Your task to perform on an android device: Open Google Maps and go to "Timeline" Image 0: 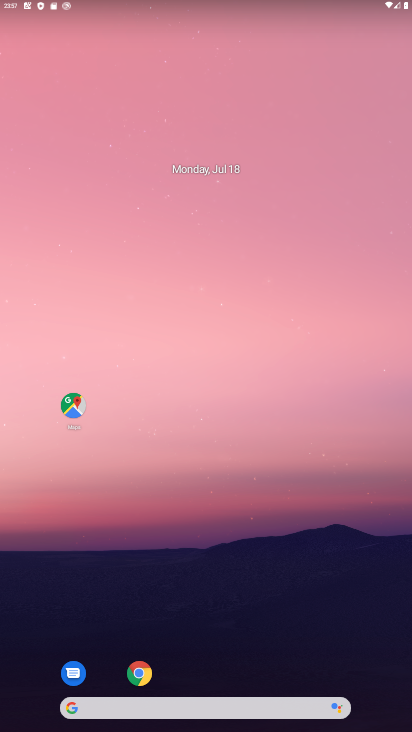
Step 0: drag from (280, 673) to (284, 266)
Your task to perform on an android device: Open Google Maps and go to "Timeline" Image 1: 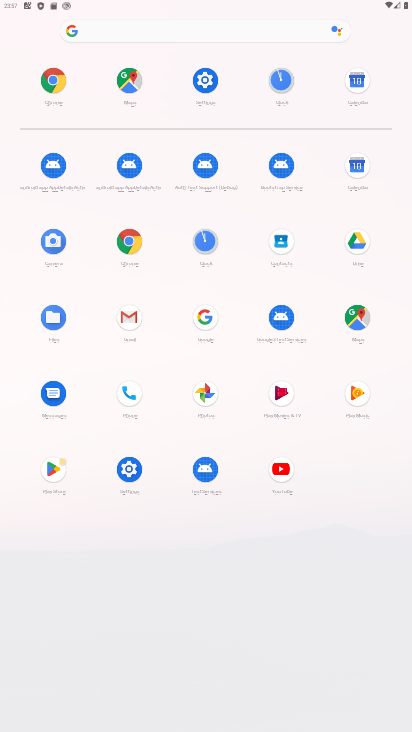
Step 1: click (361, 320)
Your task to perform on an android device: Open Google Maps and go to "Timeline" Image 2: 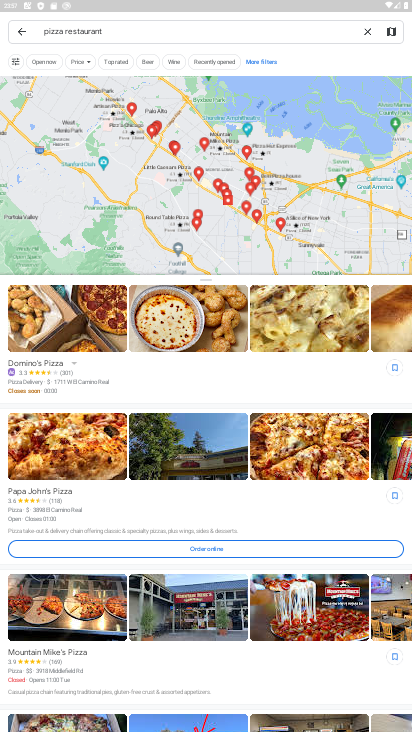
Step 2: click (28, 29)
Your task to perform on an android device: Open Google Maps and go to "Timeline" Image 3: 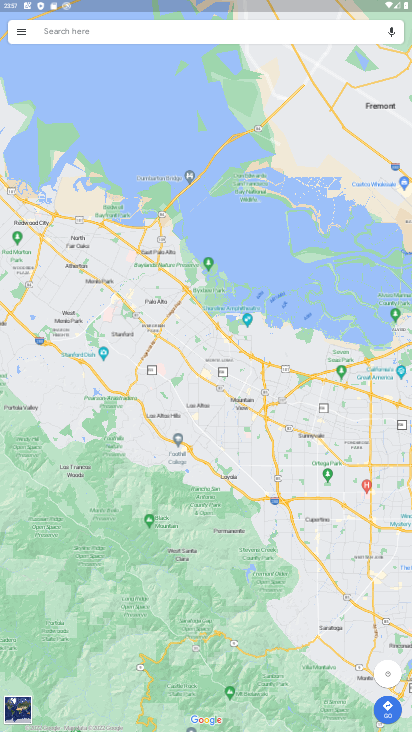
Step 3: click (24, 30)
Your task to perform on an android device: Open Google Maps and go to "Timeline" Image 4: 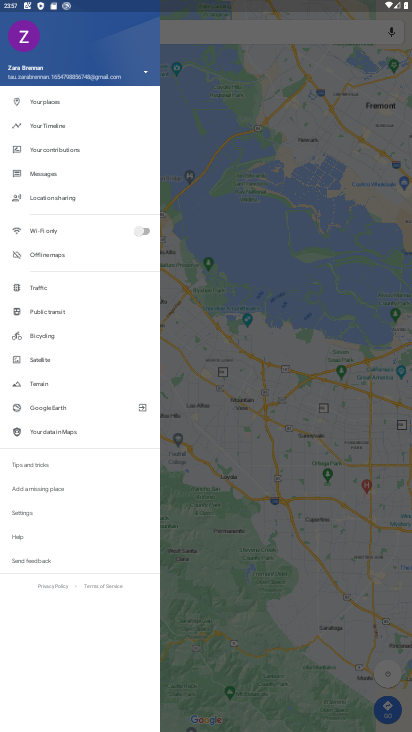
Step 4: click (50, 119)
Your task to perform on an android device: Open Google Maps and go to "Timeline" Image 5: 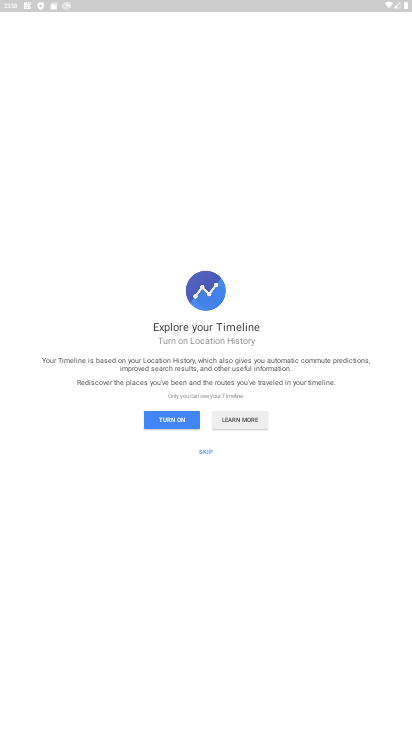
Step 5: click (181, 419)
Your task to perform on an android device: Open Google Maps and go to "Timeline" Image 6: 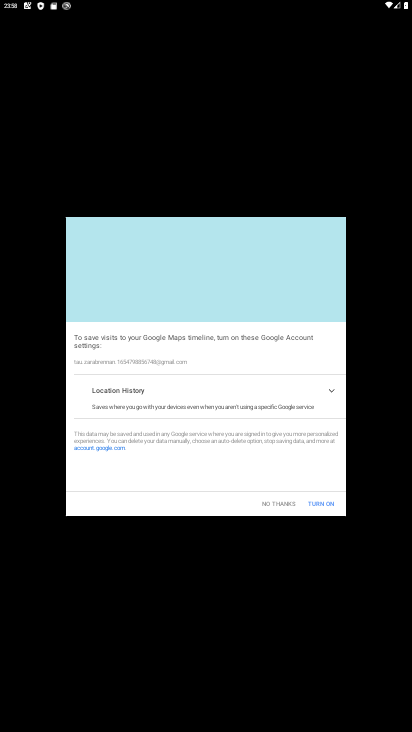
Step 6: task complete